Your task to perform on an android device: Go to settings Image 0: 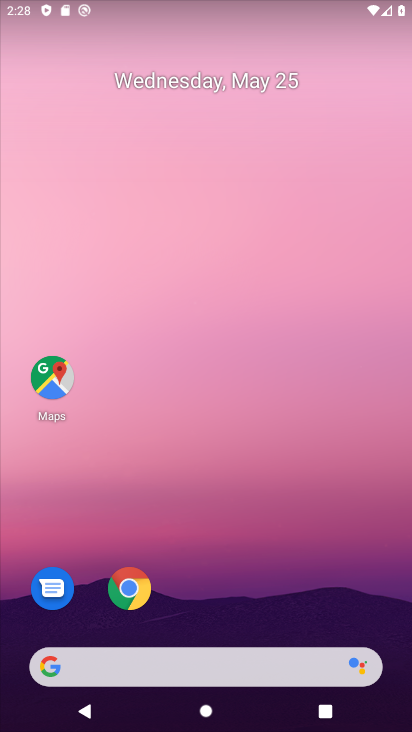
Step 0: drag from (319, 590) to (268, 73)
Your task to perform on an android device: Go to settings Image 1: 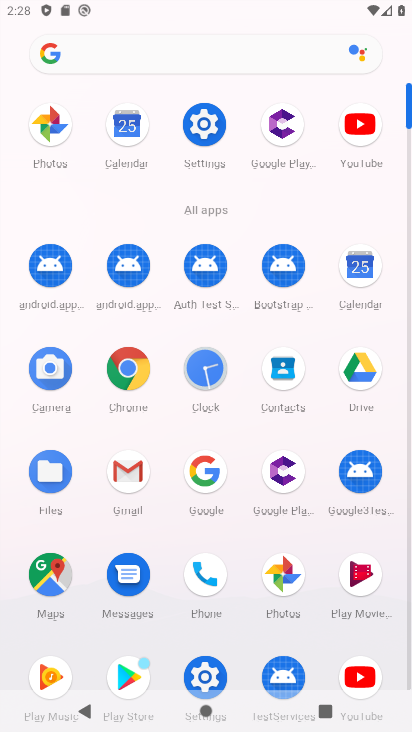
Step 1: click (198, 138)
Your task to perform on an android device: Go to settings Image 2: 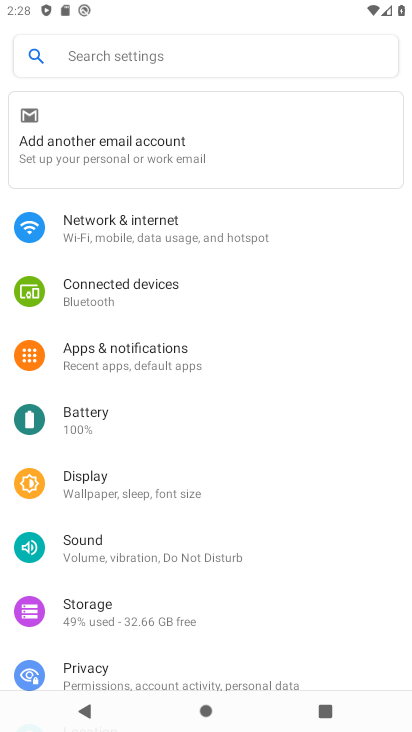
Step 2: task complete